Your task to perform on an android device: open the mobile data screen to see how much data has been used Image 0: 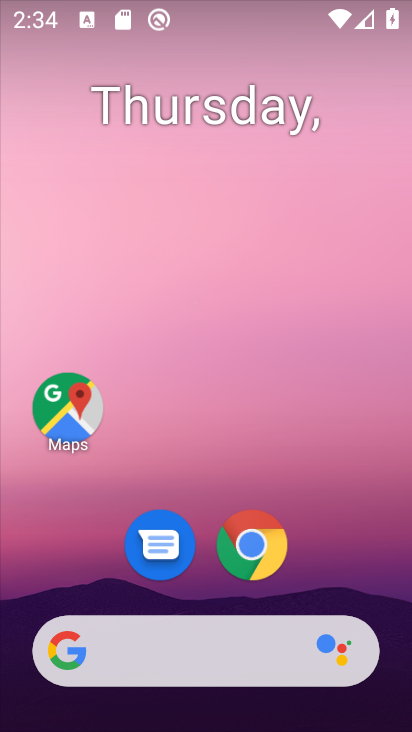
Step 0: drag from (193, 700) to (222, 34)
Your task to perform on an android device: open the mobile data screen to see how much data has been used Image 1: 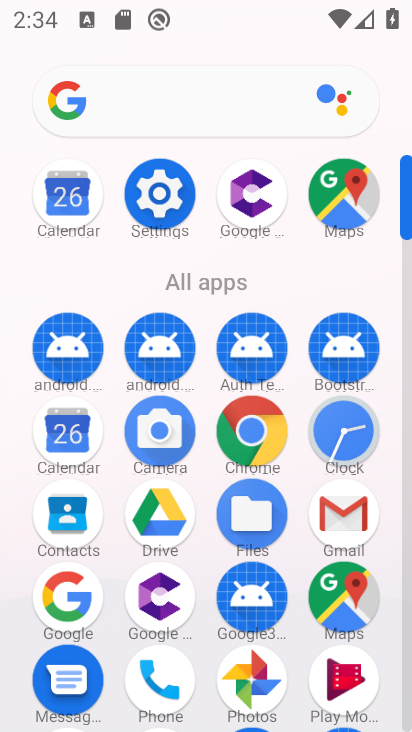
Step 1: click (188, 189)
Your task to perform on an android device: open the mobile data screen to see how much data has been used Image 2: 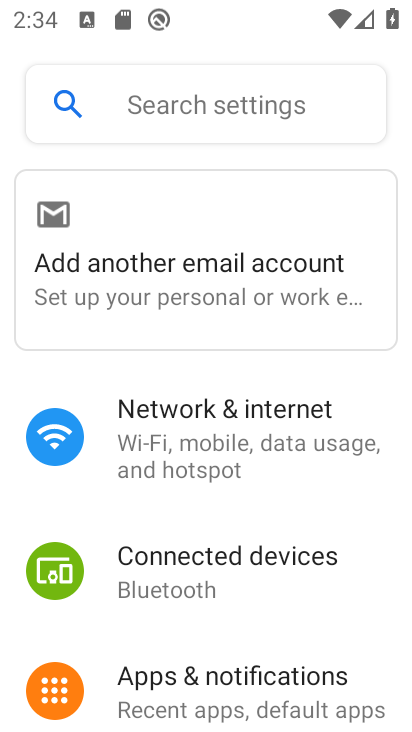
Step 2: click (258, 441)
Your task to perform on an android device: open the mobile data screen to see how much data has been used Image 3: 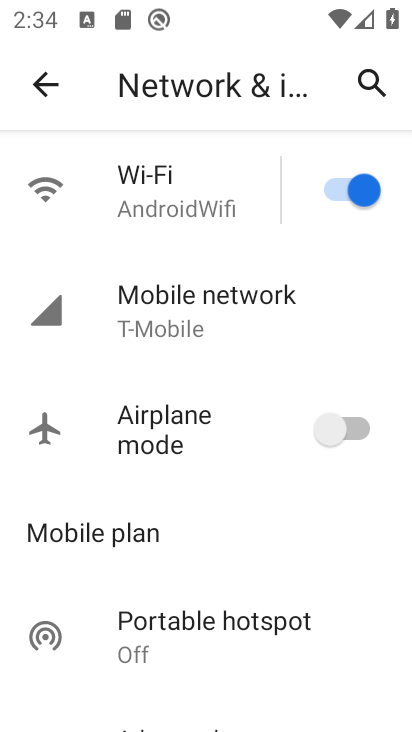
Step 3: click (186, 323)
Your task to perform on an android device: open the mobile data screen to see how much data has been used Image 4: 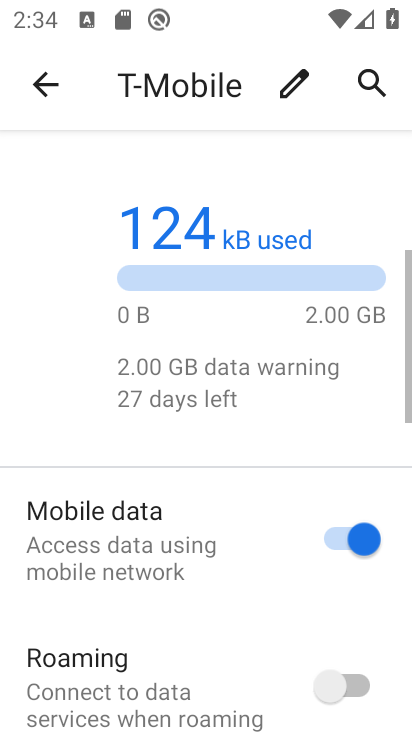
Step 4: task complete